Your task to perform on an android device: change your default location settings in chrome Image 0: 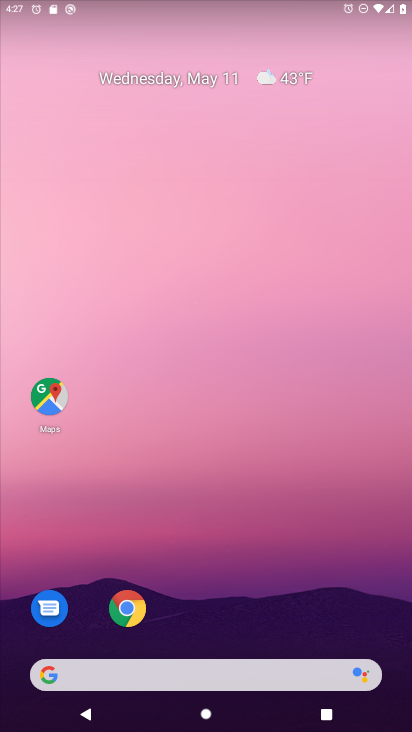
Step 0: click (130, 614)
Your task to perform on an android device: change your default location settings in chrome Image 1: 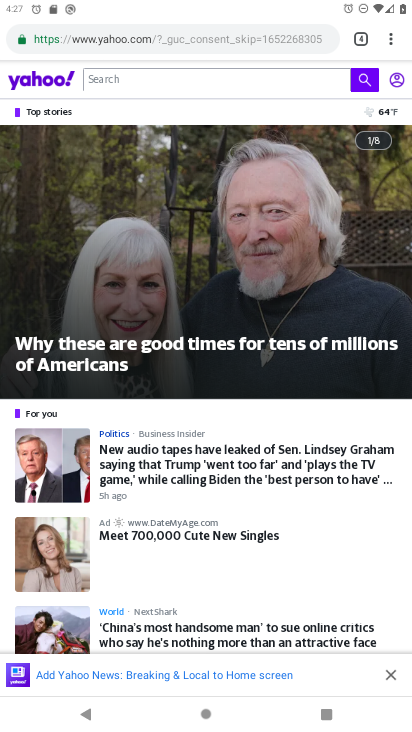
Step 1: click (392, 45)
Your task to perform on an android device: change your default location settings in chrome Image 2: 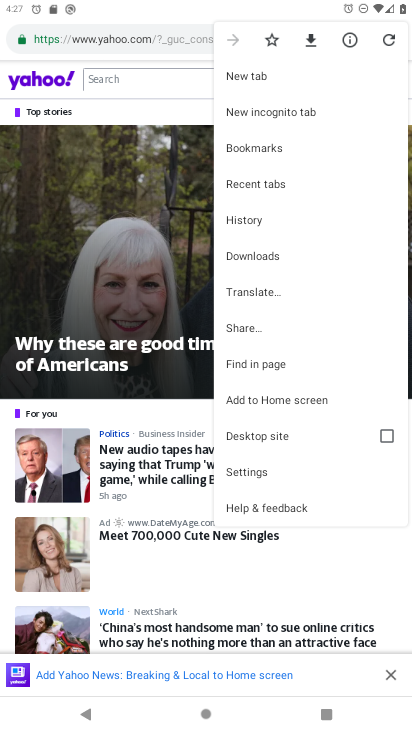
Step 2: click (246, 471)
Your task to perform on an android device: change your default location settings in chrome Image 3: 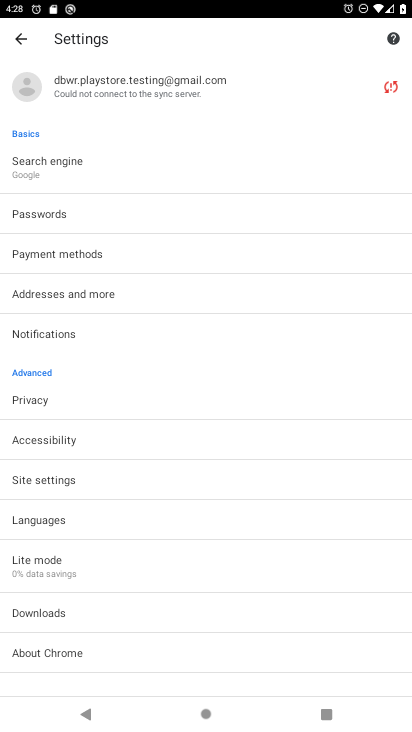
Step 3: click (45, 474)
Your task to perform on an android device: change your default location settings in chrome Image 4: 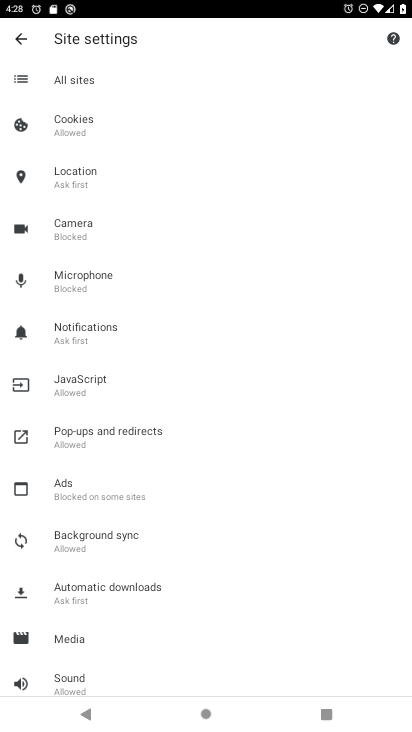
Step 4: click (77, 171)
Your task to perform on an android device: change your default location settings in chrome Image 5: 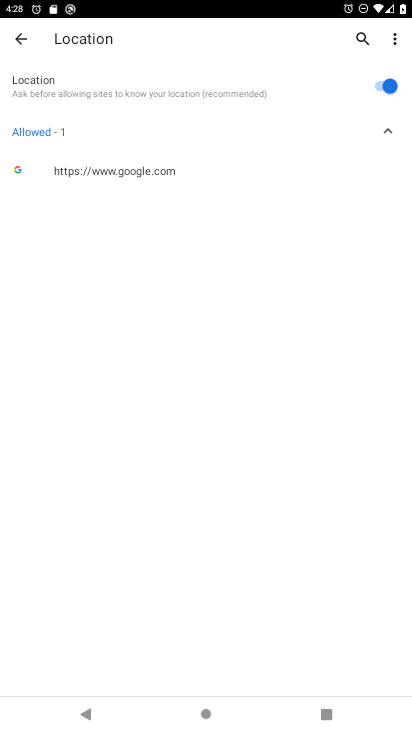
Step 5: click (384, 79)
Your task to perform on an android device: change your default location settings in chrome Image 6: 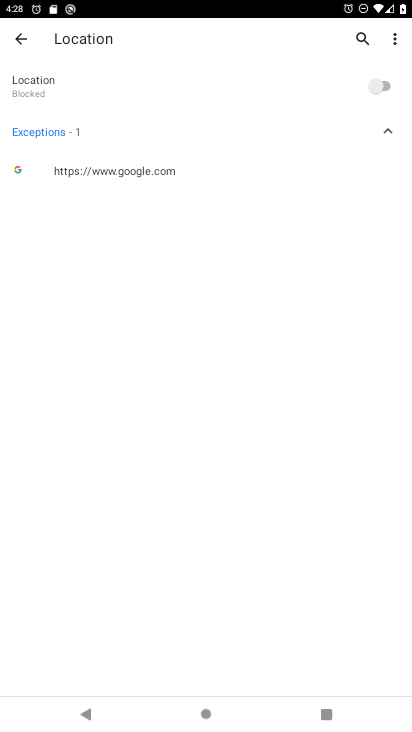
Step 6: task complete